Your task to perform on an android device: Open the Play Movies app and select the watchlist tab. Image 0: 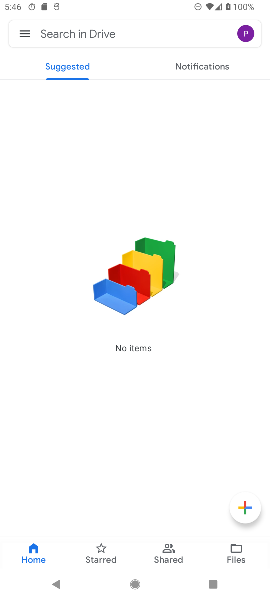
Step 0: press back button
Your task to perform on an android device: Open the Play Movies app and select the watchlist tab. Image 1: 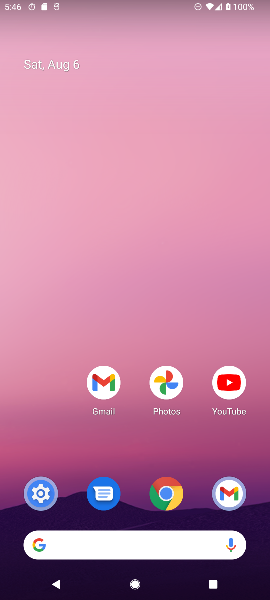
Step 1: task complete